Your task to perform on an android device: uninstall "Fetch Rewards" Image 0: 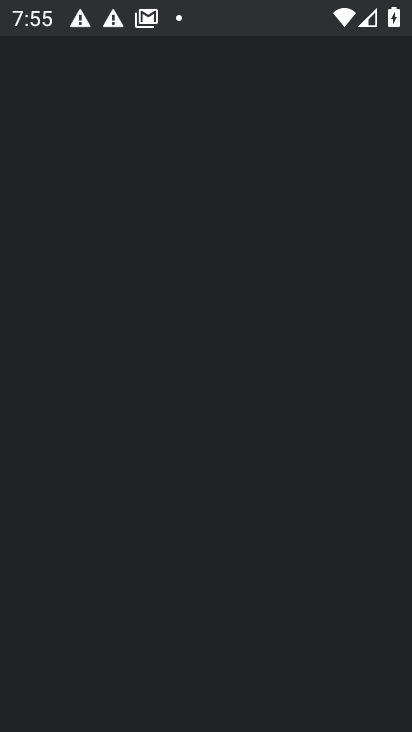
Step 0: drag from (182, 535) to (208, 242)
Your task to perform on an android device: uninstall "Fetch Rewards" Image 1: 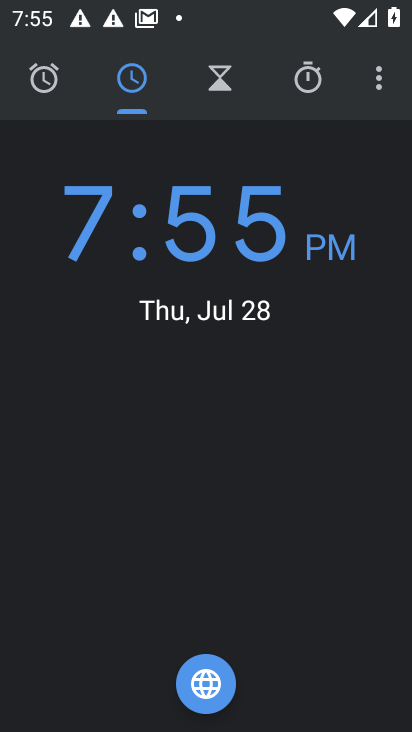
Step 1: press home button
Your task to perform on an android device: uninstall "Fetch Rewards" Image 2: 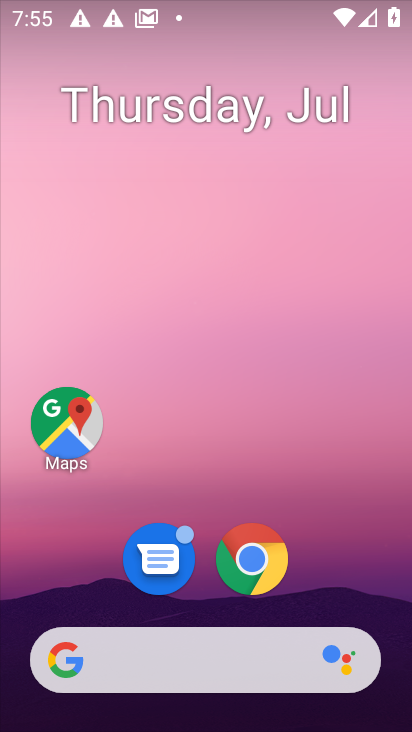
Step 2: drag from (205, 594) to (255, 104)
Your task to perform on an android device: uninstall "Fetch Rewards" Image 3: 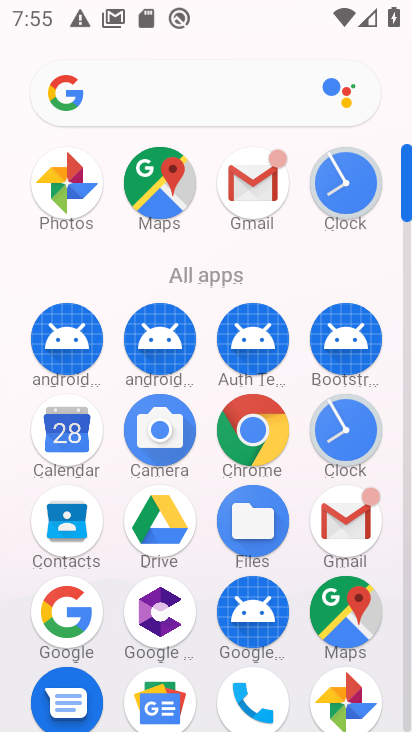
Step 3: drag from (204, 544) to (223, 282)
Your task to perform on an android device: uninstall "Fetch Rewards" Image 4: 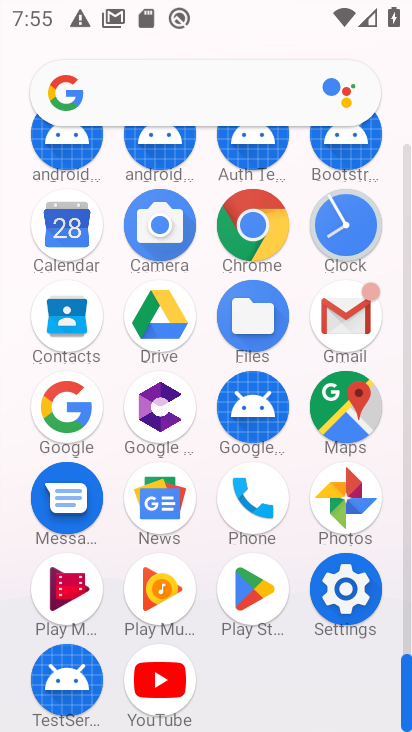
Step 4: click (250, 577)
Your task to perform on an android device: uninstall "Fetch Rewards" Image 5: 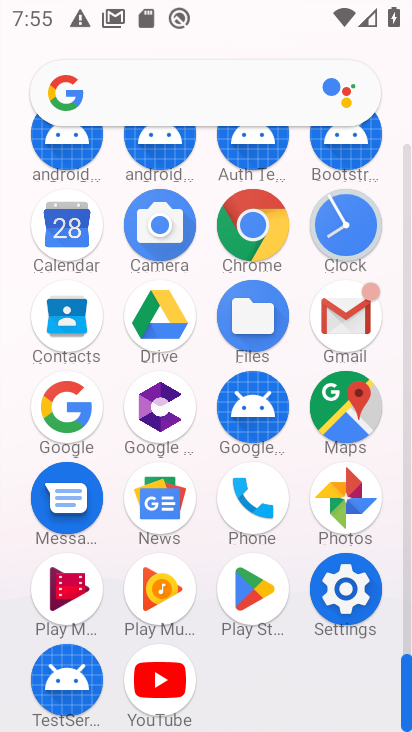
Step 5: click (250, 577)
Your task to perform on an android device: uninstall "Fetch Rewards" Image 6: 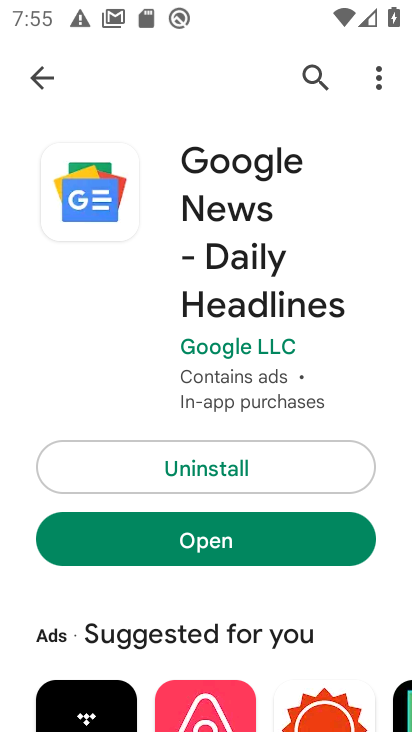
Step 6: drag from (141, 583) to (149, 314)
Your task to perform on an android device: uninstall "Fetch Rewards" Image 7: 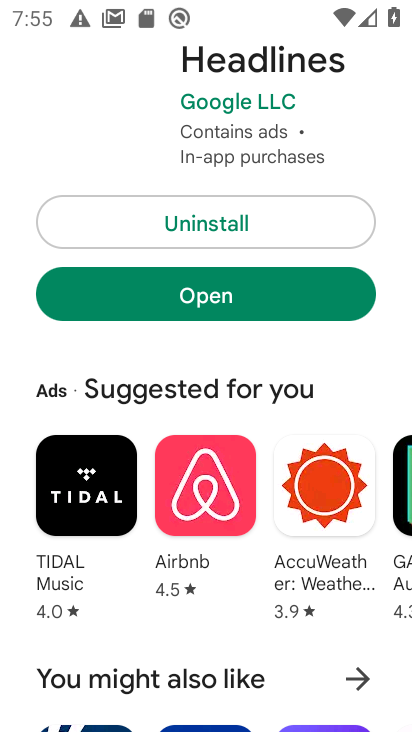
Step 7: click (332, 448)
Your task to perform on an android device: uninstall "Fetch Rewards" Image 8: 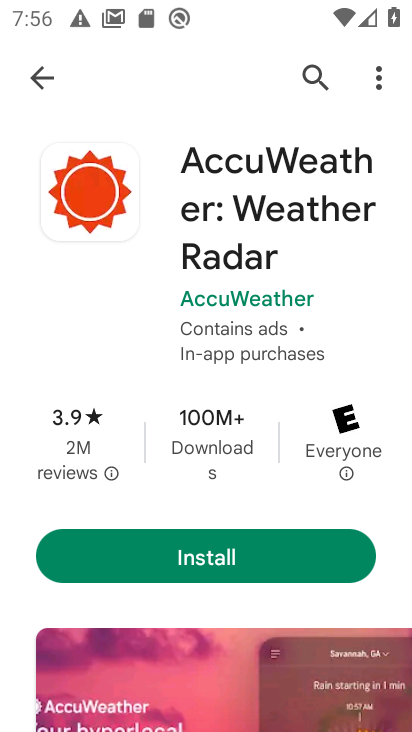
Step 8: task complete